Your task to perform on an android device: What's the weather going to be tomorrow? Image 0: 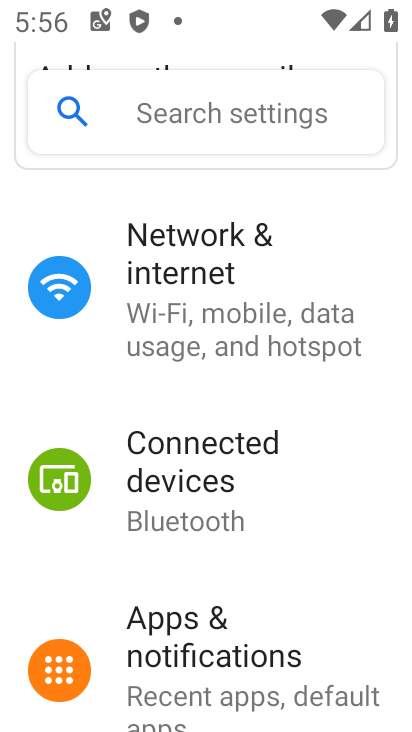
Step 0: press home button
Your task to perform on an android device: What's the weather going to be tomorrow? Image 1: 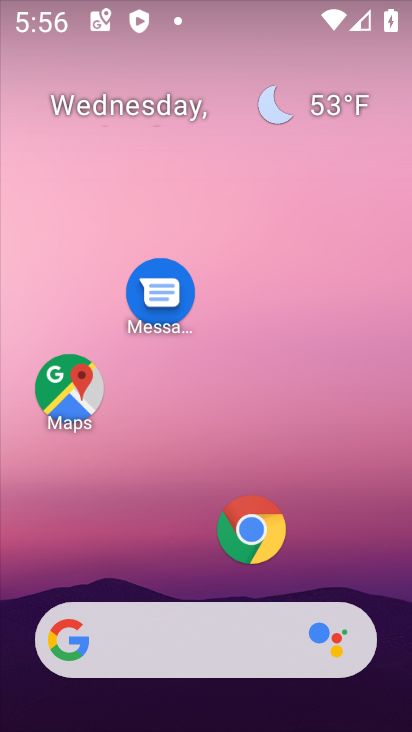
Step 1: drag from (229, 584) to (225, 167)
Your task to perform on an android device: What's the weather going to be tomorrow? Image 2: 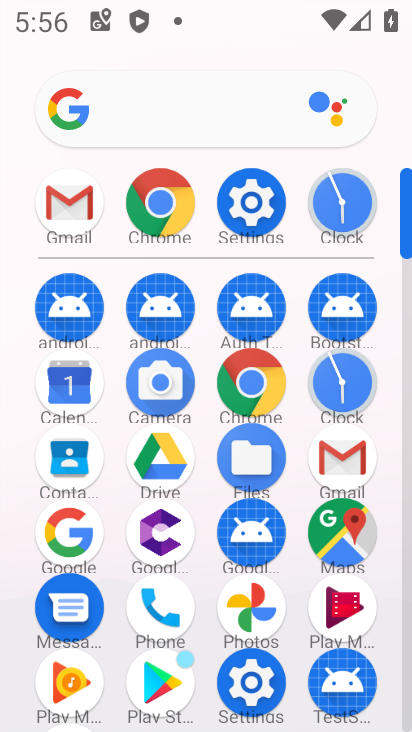
Step 2: click (68, 543)
Your task to perform on an android device: What's the weather going to be tomorrow? Image 3: 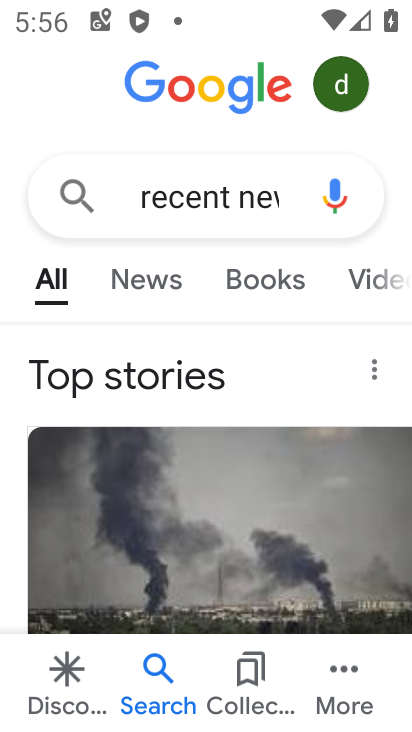
Step 3: click (301, 201)
Your task to perform on an android device: What's the weather going to be tomorrow? Image 4: 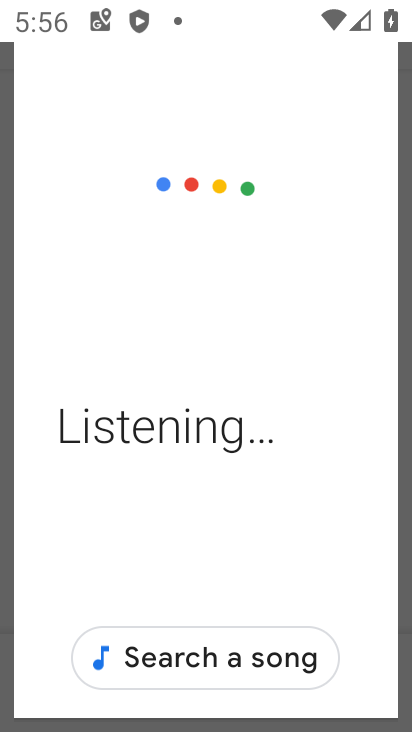
Step 4: press back button
Your task to perform on an android device: What's the weather going to be tomorrow? Image 5: 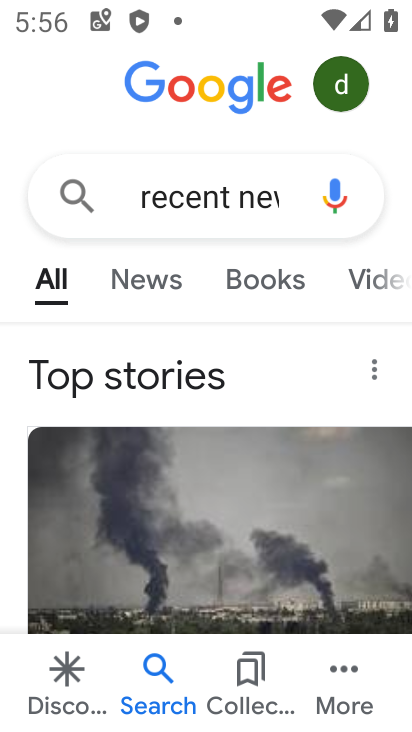
Step 5: click (181, 209)
Your task to perform on an android device: What's the weather going to be tomorrow? Image 6: 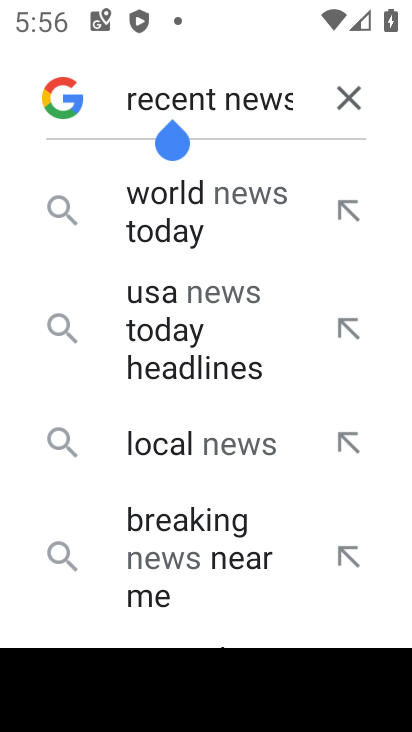
Step 6: click (350, 86)
Your task to perform on an android device: What's the weather going to be tomorrow? Image 7: 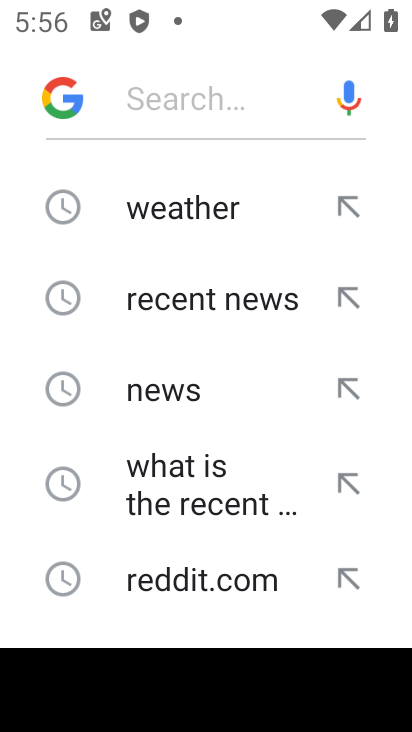
Step 7: click (228, 209)
Your task to perform on an android device: What's the weather going to be tomorrow? Image 8: 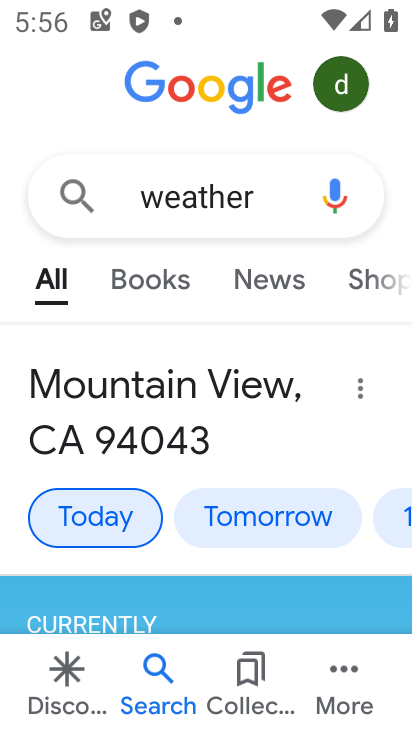
Step 8: click (252, 524)
Your task to perform on an android device: What's the weather going to be tomorrow? Image 9: 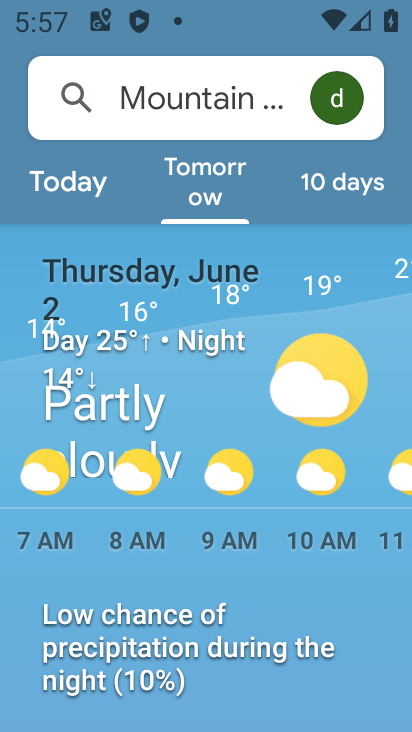
Step 9: task complete